Your task to perform on an android device: toggle sleep mode Image 0: 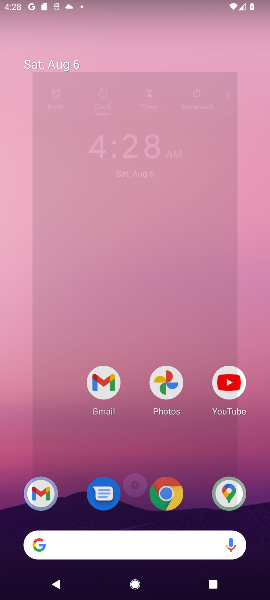
Step 0: drag from (197, 566) to (149, 319)
Your task to perform on an android device: toggle sleep mode Image 1: 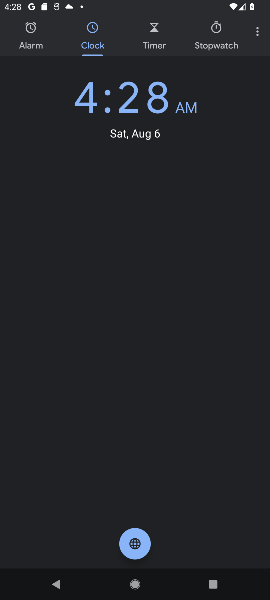
Step 1: click (255, 35)
Your task to perform on an android device: toggle sleep mode Image 2: 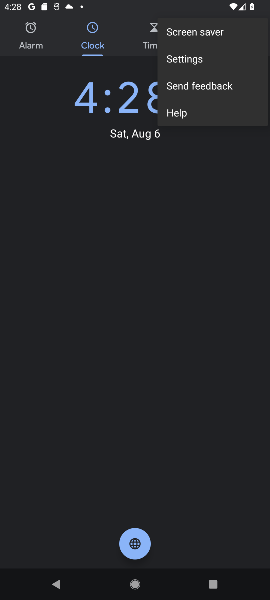
Step 2: press back button
Your task to perform on an android device: toggle sleep mode Image 3: 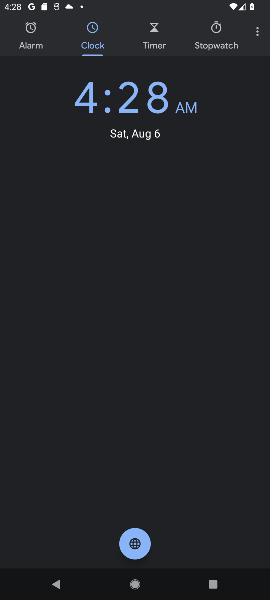
Step 3: press home button
Your task to perform on an android device: toggle sleep mode Image 4: 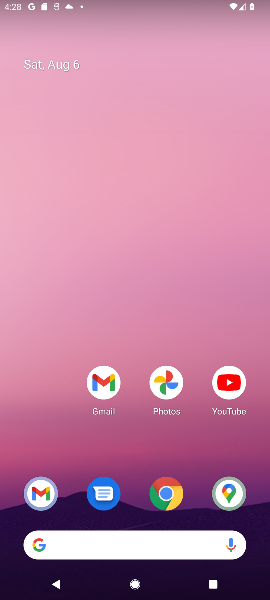
Step 4: drag from (174, 574) to (148, 226)
Your task to perform on an android device: toggle sleep mode Image 5: 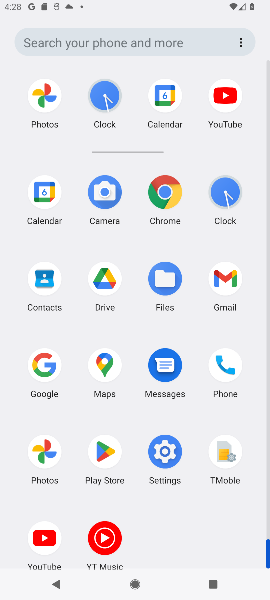
Step 5: click (167, 452)
Your task to perform on an android device: toggle sleep mode Image 6: 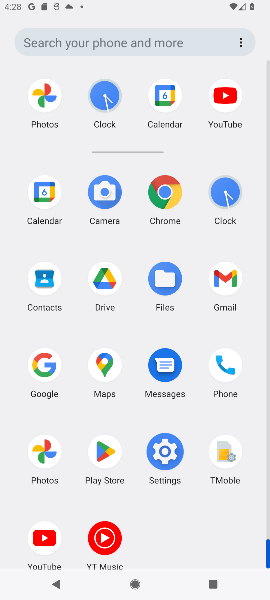
Step 6: click (167, 452)
Your task to perform on an android device: toggle sleep mode Image 7: 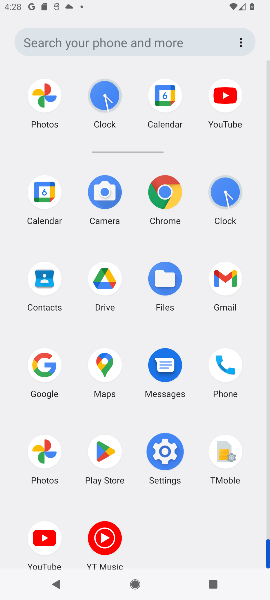
Step 7: click (167, 454)
Your task to perform on an android device: toggle sleep mode Image 8: 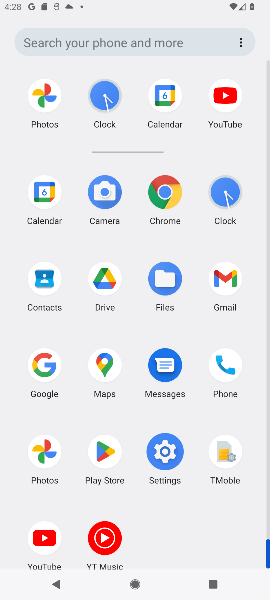
Step 8: click (167, 456)
Your task to perform on an android device: toggle sleep mode Image 9: 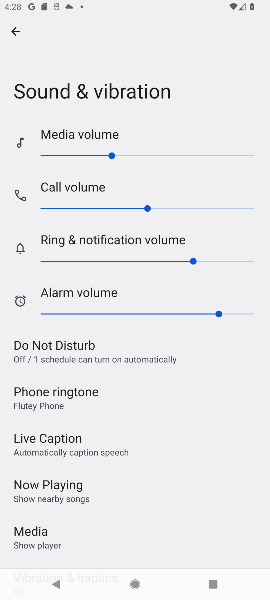
Step 9: click (16, 36)
Your task to perform on an android device: toggle sleep mode Image 10: 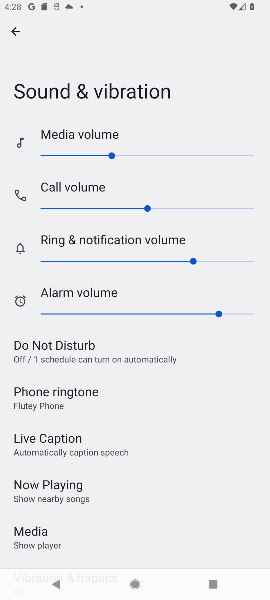
Step 10: click (16, 34)
Your task to perform on an android device: toggle sleep mode Image 11: 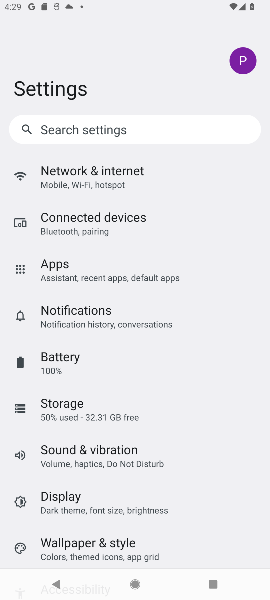
Step 11: drag from (90, 503) to (84, 282)
Your task to perform on an android device: toggle sleep mode Image 12: 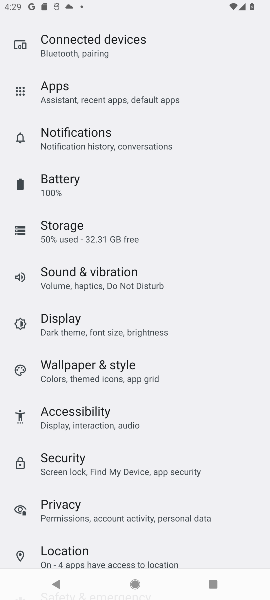
Step 12: drag from (113, 396) to (107, 248)
Your task to perform on an android device: toggle sleep mode Image 13: 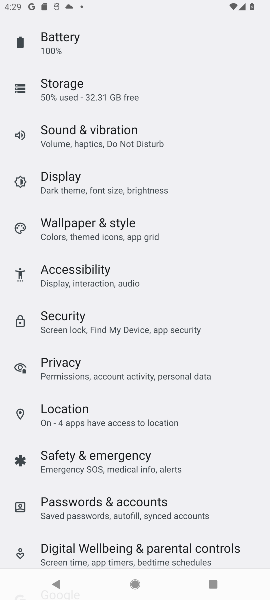
Step 13: click (78, 269)
Your task to perform on an android device: toggle sleep mode Image 14: 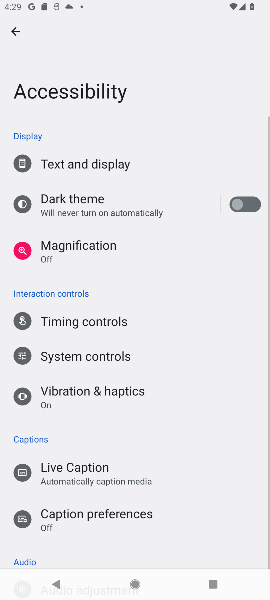
Step 14: press back button
Your task to perform on an android device: toggle sleep mode Image 15: 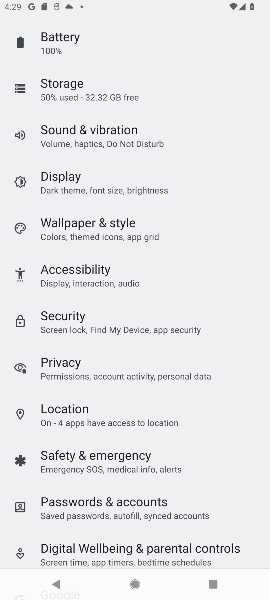
Step 15: click (62, 184)
Your task to perform on an android device: toggle sleep mode Image 16: 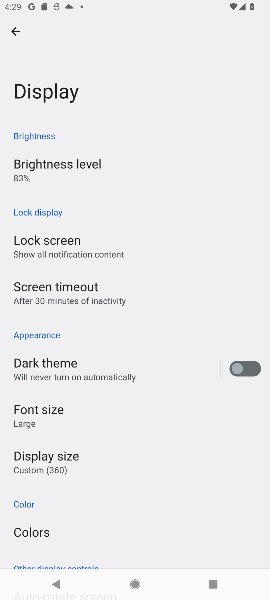
Step 16: click (60, 289)
Your task to perform on an android device: toggle sleep mode Image 17: 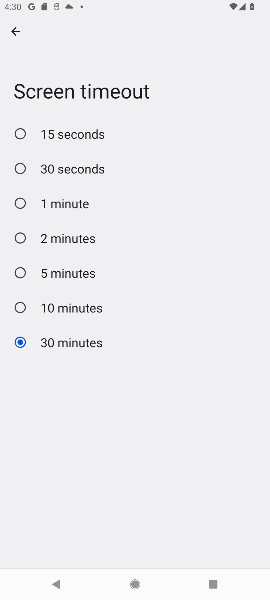
Step 17: click (13, 263)
Your task to perform on an android device: toggle sleep mode Image 18: 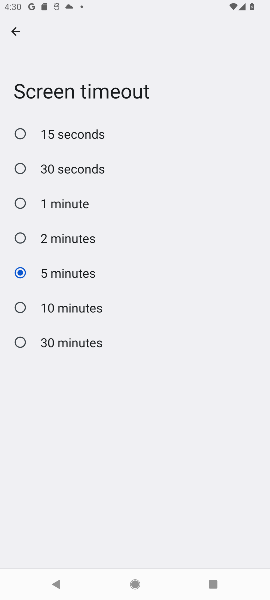
Step 18: task complete